Your task to perform on an android device: Search for a new hair product Image 0: 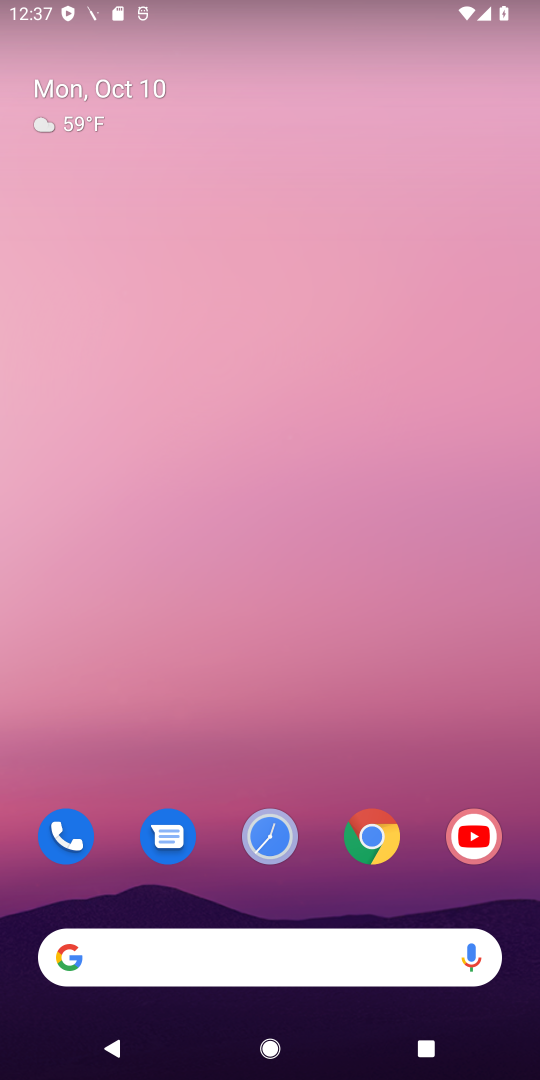
Step 0: click (364, 844)
Your task to perform on an android device: Search for a new hair product Image 1: 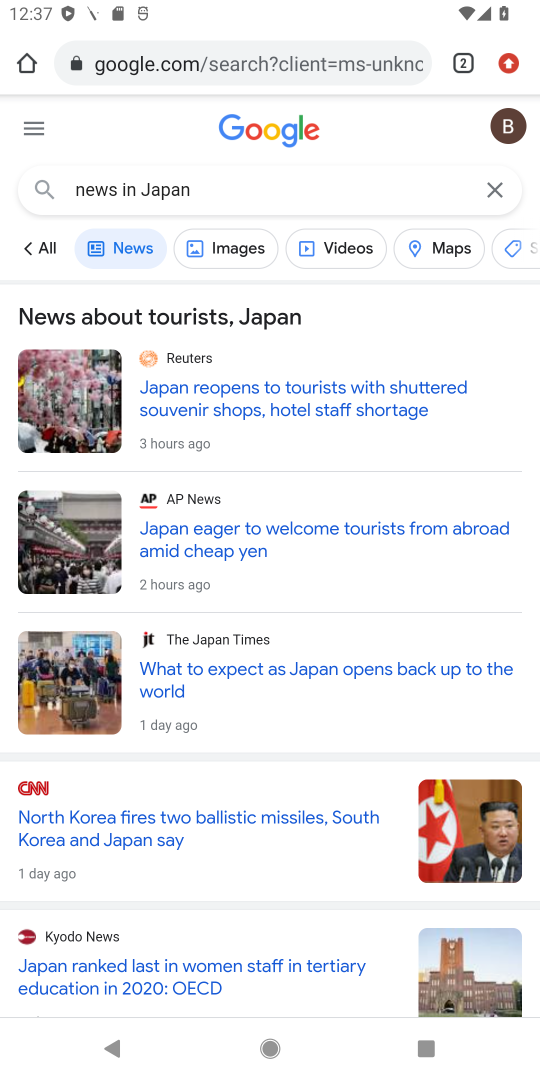
Step 1: click (290, 71)
Your task to perform on an android device: Search for a new hair product Image 2: 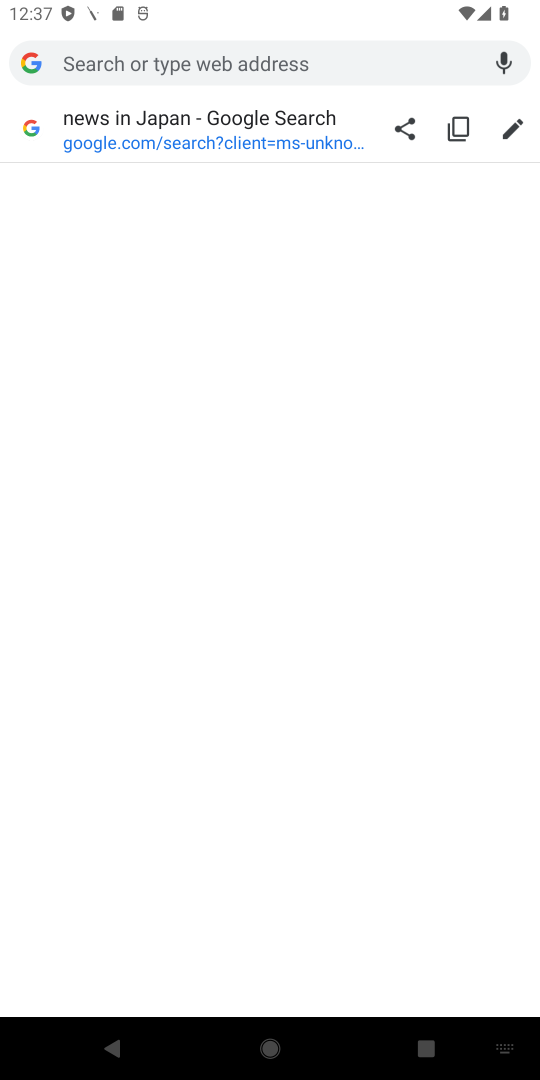
Step 2: type "new hair product"
Your task to perform on an android device: Search for a new hair product Image 3: 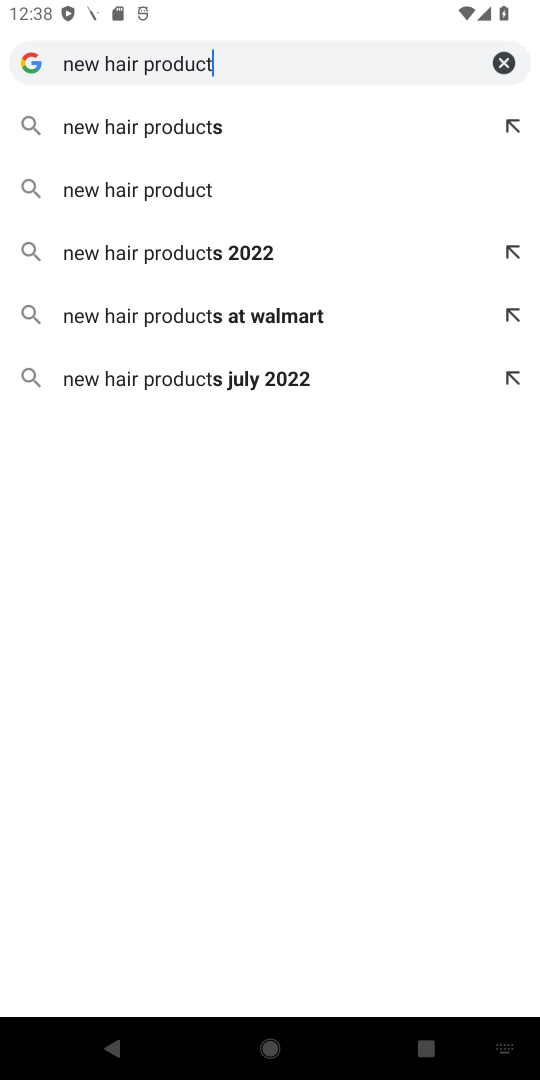
Step 3: click (249, 187)
Your task to perform on an android device: Search for a new hair product Image 4: 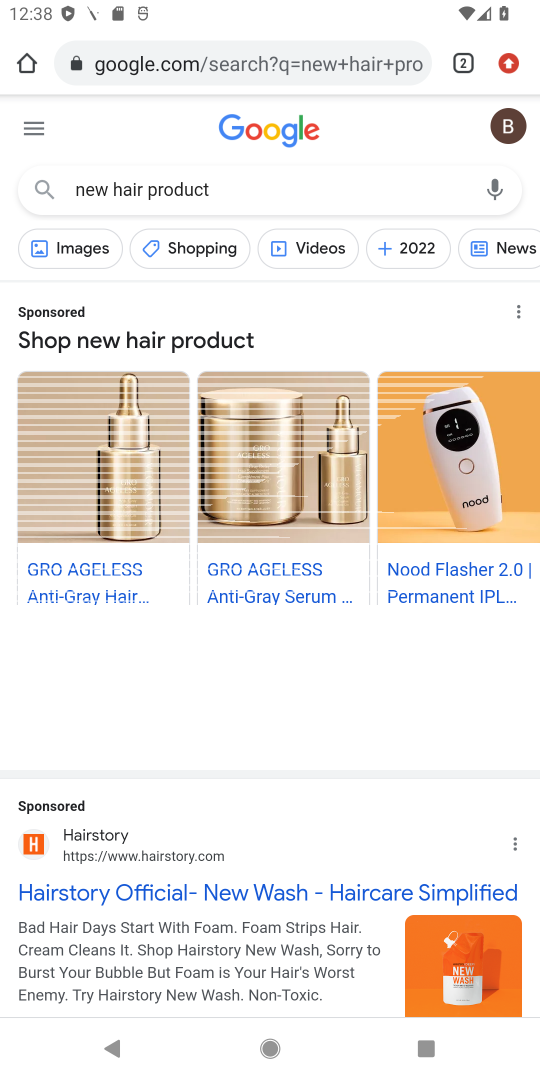
Step 4: drag from (245, 831) to (292, 597)
Your task to perform on an android device: Search for a new hair product Image 5: 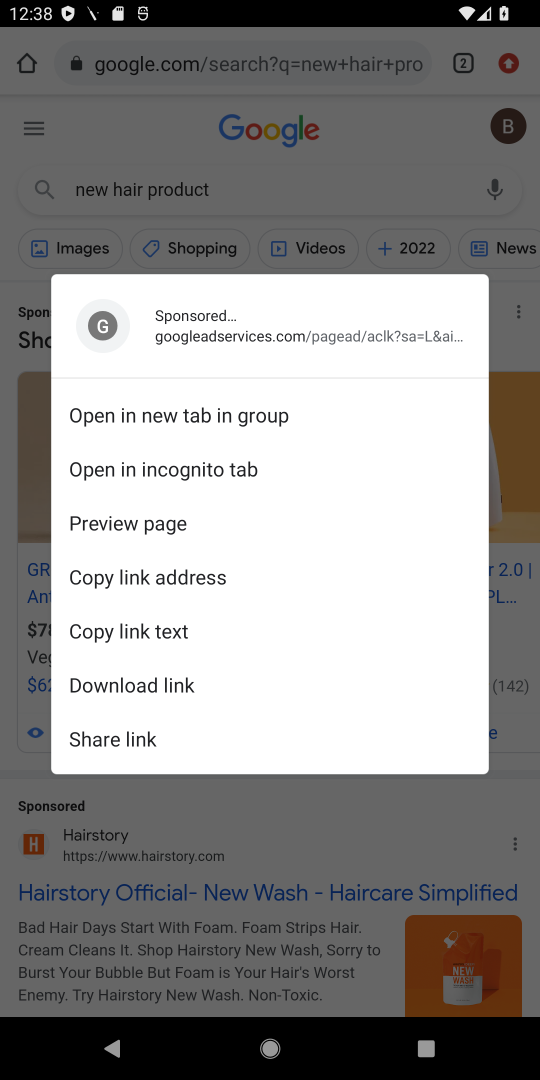
Step 5: click (247, 793)
Your task to perform on an android device: Search for a new hair product Image 6: 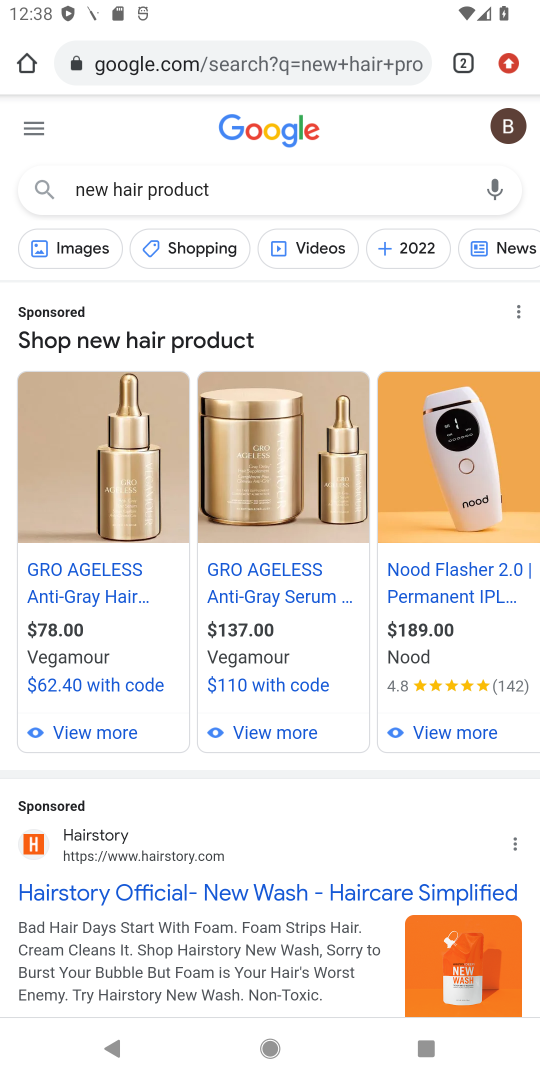
Step 6: task complete